Your task to perform on an android device: stop showing notifications on the lock screen Image 0: 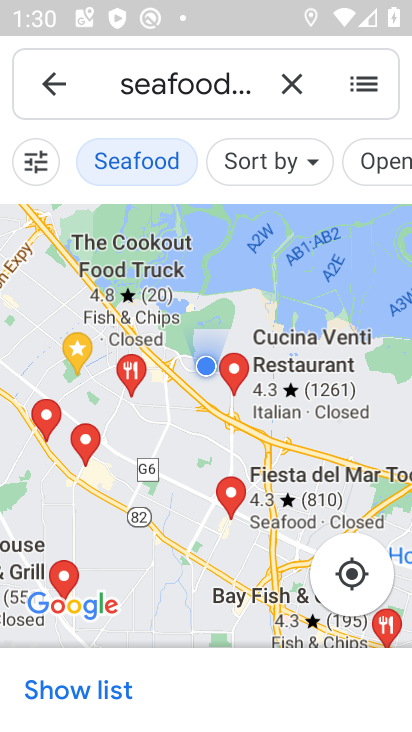
Step 0: press home button
Your task to perform on an android device: stop showing notifications on the lock screen Image 1: 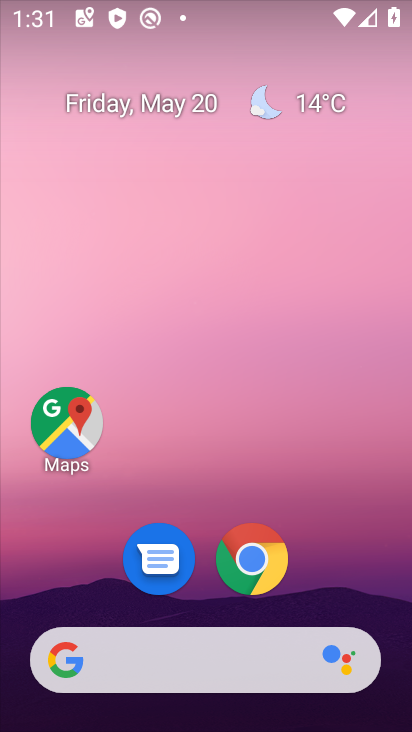
Step 1: drag from (364, 571) to (323, 247)
Your task to perform on an android device: stop showing notifications on the lock screen Image 2: 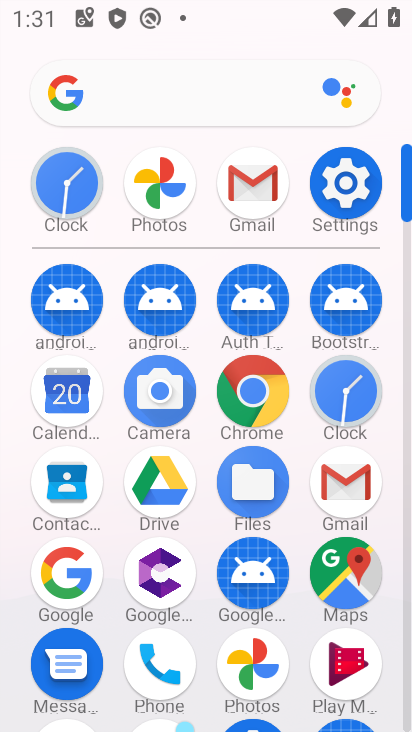
Step 2: click (333, 215)
Your task to perform on an android device: stop showing notifications on the lock screen Image 3: 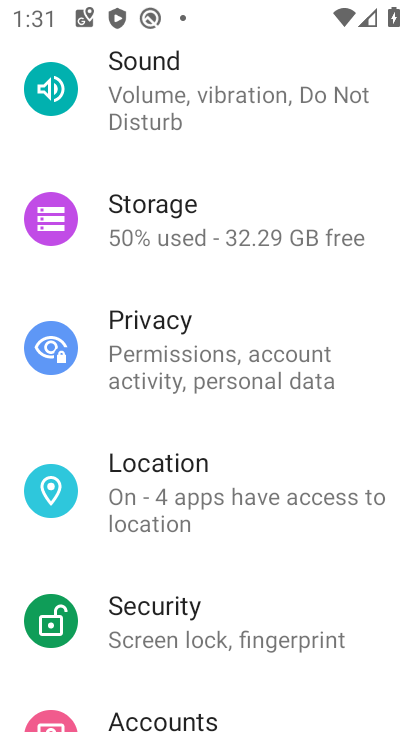
Step 3: drag from (211, 272) to (203, 377)
Your task to perform on an android device: stop showing notifications on the lock screen Image 4: 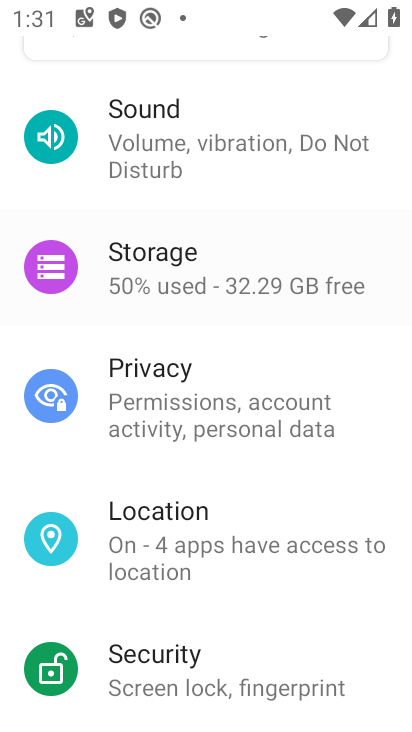
Step 4: drag from (203, 377) to (210, 648)
Your task to perform on an android device: stop showing notifications on the lock screen Image 5: 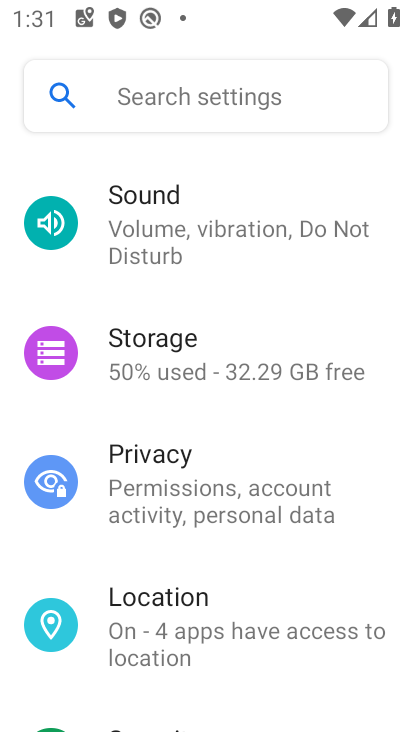
Step 5: click (210, 648)
Your task to perform on an android device: stop showing notifications on the lock screen Image 6: 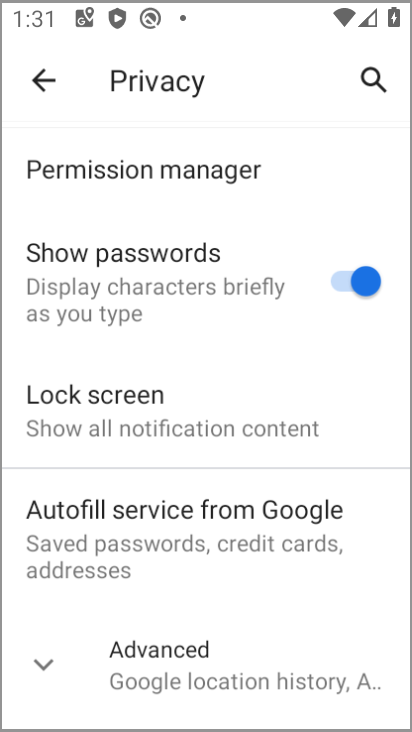
Step 6: drag from (228, 312) to (217, 602)
Your task to perform on an android device: stop showing notifications on the lock screen Image 7: 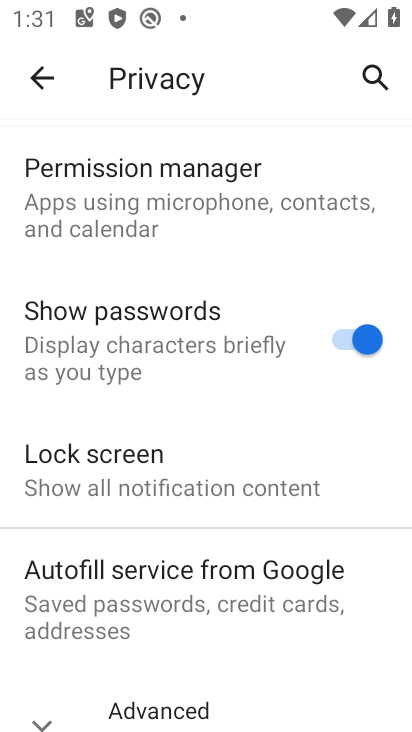
Step 7: click (53, 84)
Your task to perform on an android device: stop showing notifications on the lock screen Image 8: 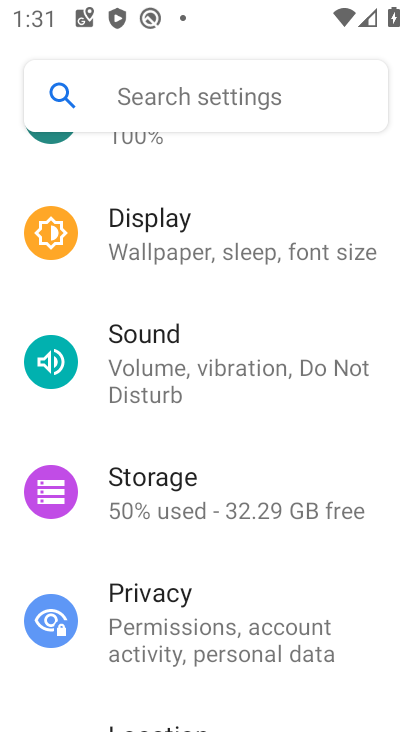
Step 8: drag from (135, 222) to (243, 677)
Your task to perform on an android device: stop showing notifications on the lock screen Image 9: 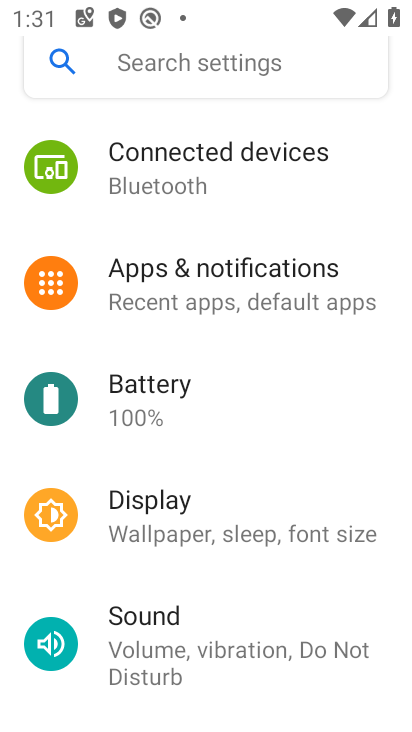
Step 9: click (222, 309)
Your task to perform on an android device: stop showing notifications on the lock screen Image 10: 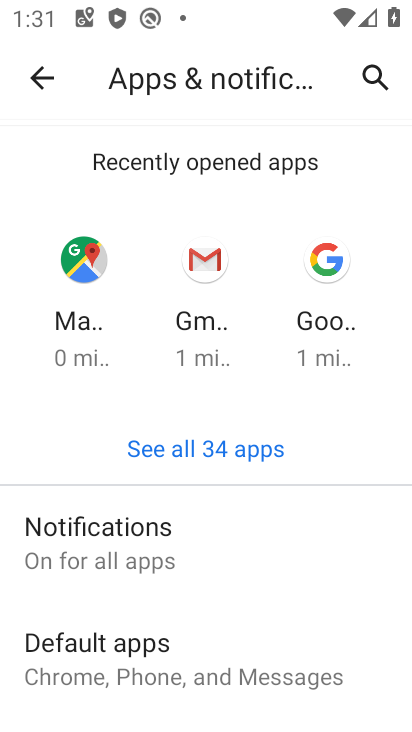
Step 10: drag from (219, 409) to (195, 563)
Your task to perform on an android device: stop showing notifications on the lock screen Image 11: 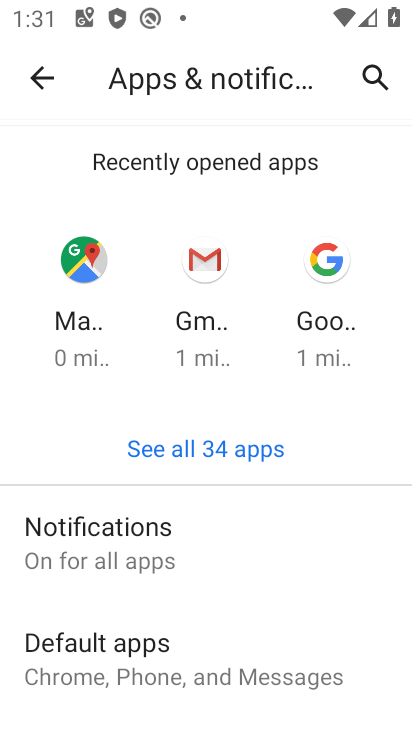
Step 11: drag from (195, 563) to (183, 298)
Your task to perform on an android device: stop showing notifications on the lock screen Image 12: 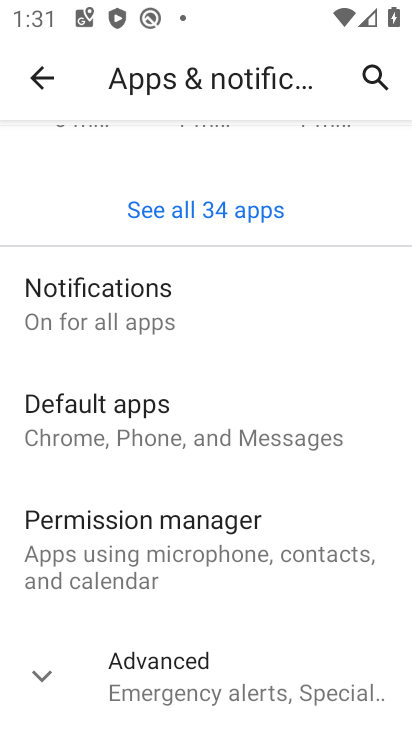
Step 12: drag from (189, 526) to (189, 375)
Your task to perform on an android device: stop showing notifications on the lock screen Image 13: 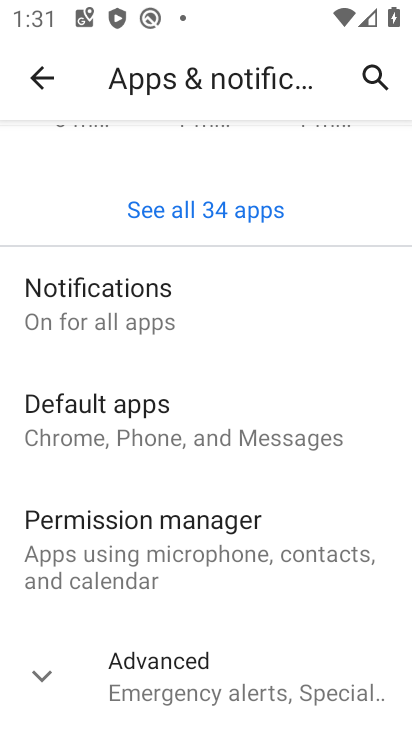
Step 13: click (164, 642)
Your task to perform on an android device: stop showing notifications on the lock screen Image 14: 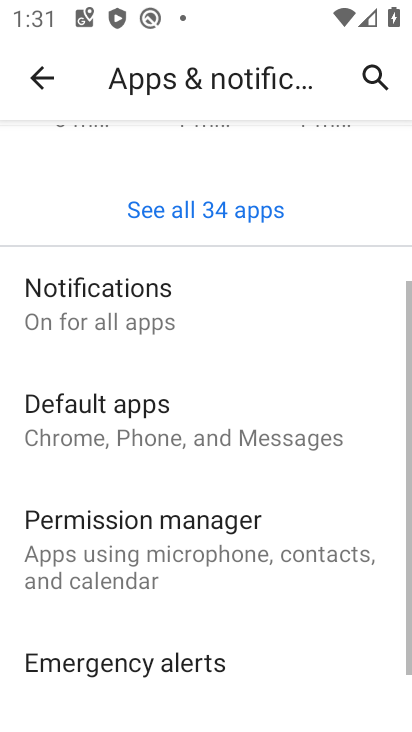
Step 14: drag from (164, 642) to (174, 308)
Your task to perform on an android device: stop showing notifications on the lock screen Image 15: 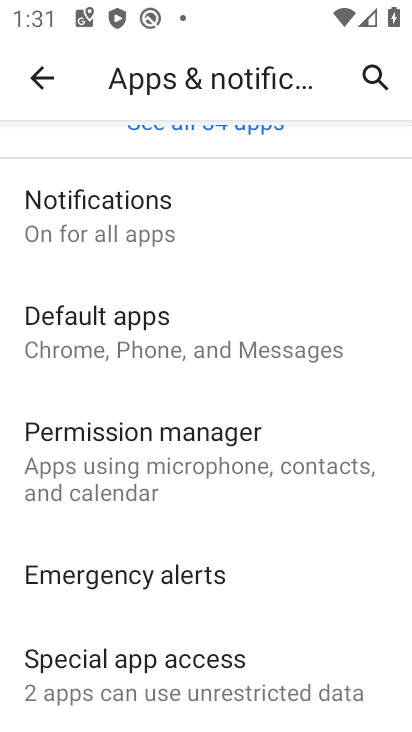
Step 15: click (137, 206)
Your task to perform on an android device: stop showing notifications on the lock screen Image 16: 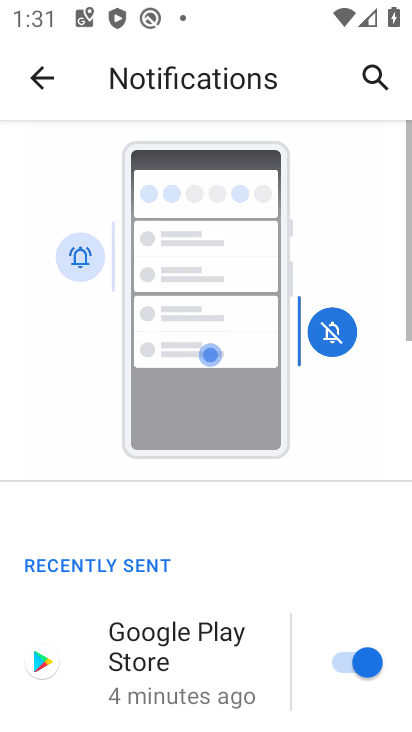
Step 16: drag from (201, 614) to (166, 209)
Your task to perform on an android device: stop showing notifications on the lock screen Image 17: 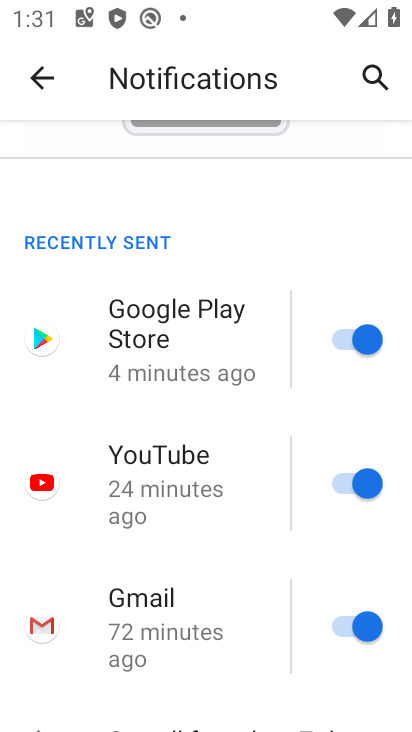
Step 17: drag from (159, 517) to (174, 205)
Your task to perform on an android device: stop showing notifications on the lock screen Image 18: 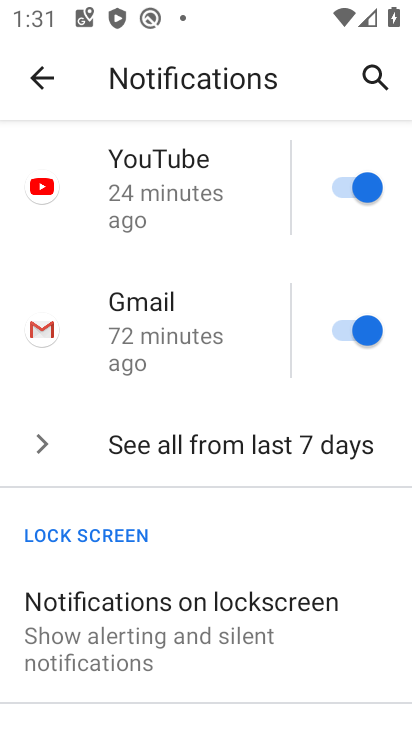
Step 18: click (175, 606)
Your task to perform on an android device: stop showing notifications on the lock screen Image 19: 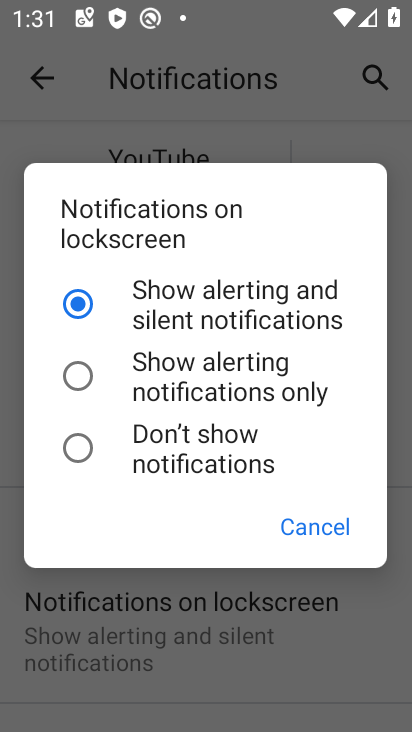
Step 19: click (178, 465)
Your task to perform on an android device: stop showing notifications on the lock screen Image 20: 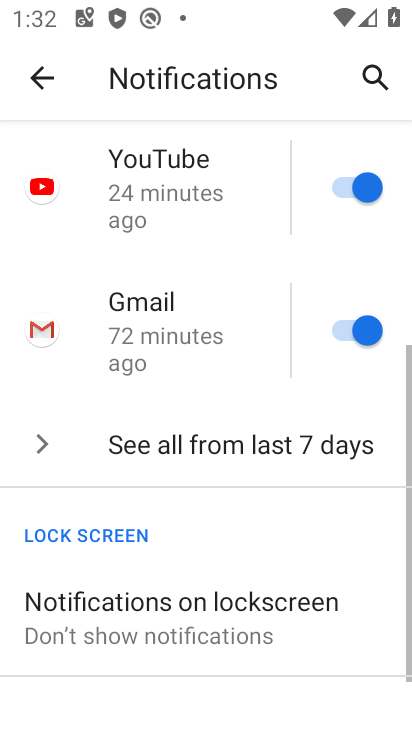
Step 20: task complete